Your task to perform on an android device: Open privacy settings Image 0: 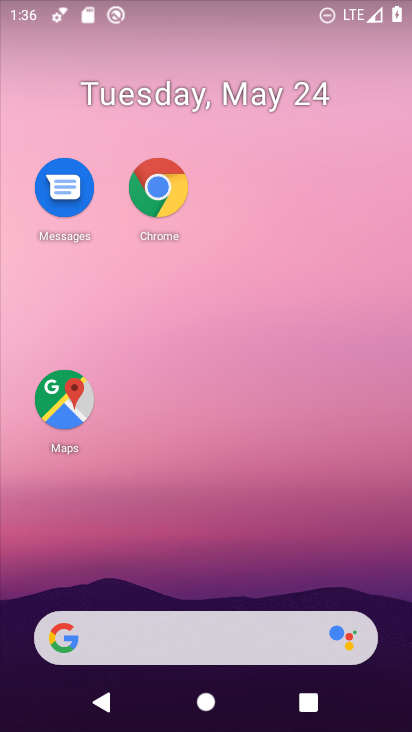
Step 0: drag from (262, 557) to (288, 22)
Your task to perform on an android device: Open privacy settings Image 1: 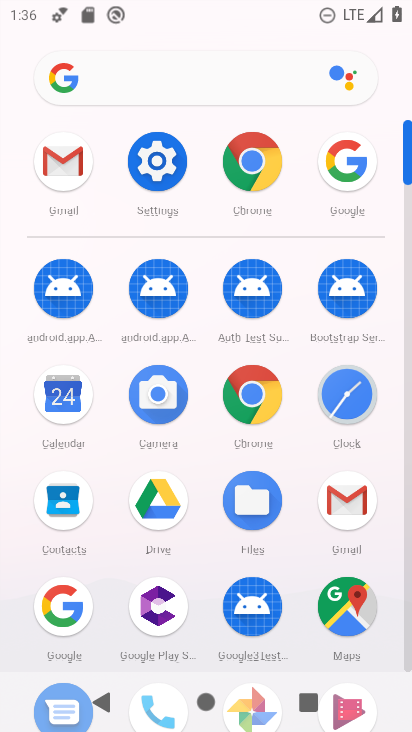
Step 1: click (153, 168)
Your task to perform on an android device: Open privacy settings Image 2: 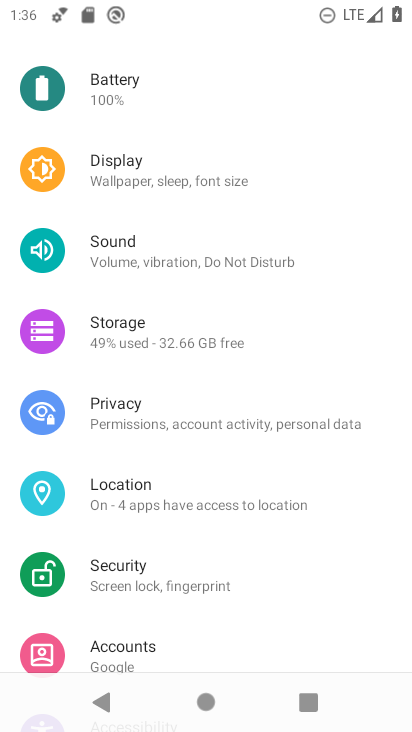
Step 2: click (128, 430)
Your task to perform on an android device: Open privacy settings Image 3: 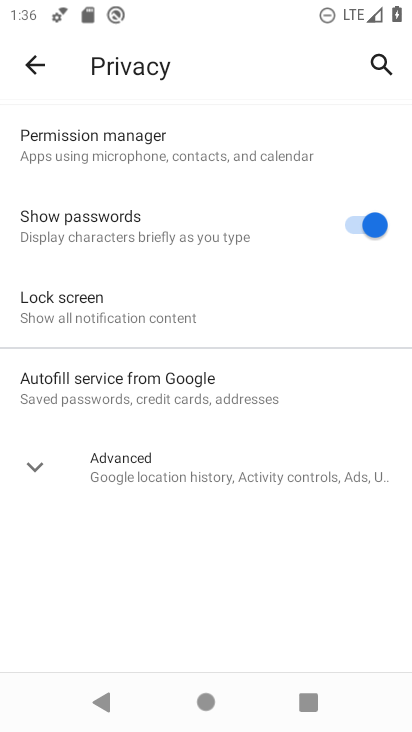
Step 3: task complete